Your task to perform on an android device: What's the weather going to be tomorrow? Image 0: 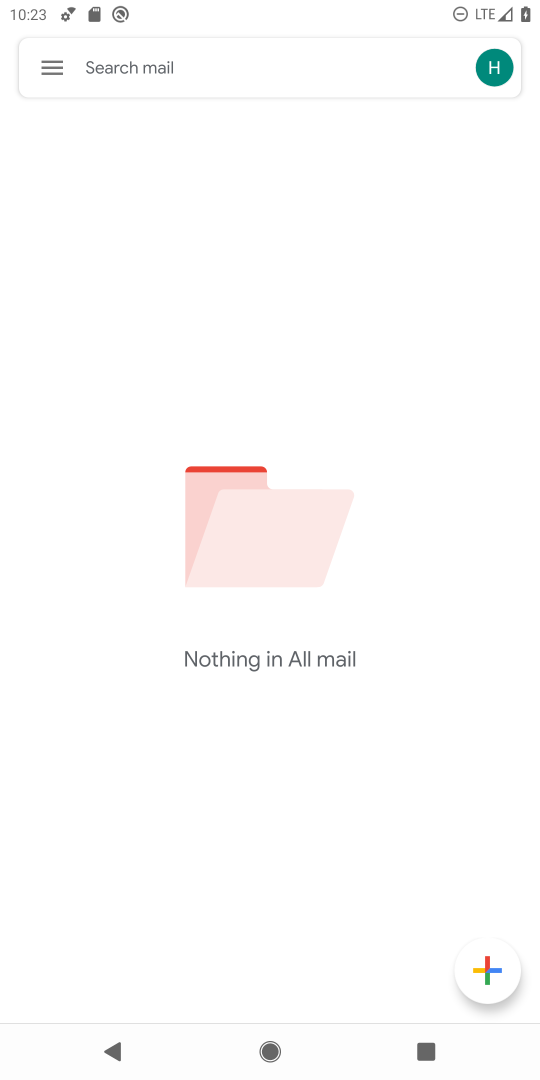
Step 0: press home button
Your task to perform on an android device: What's the weather going to be tomorrow? Image 1: 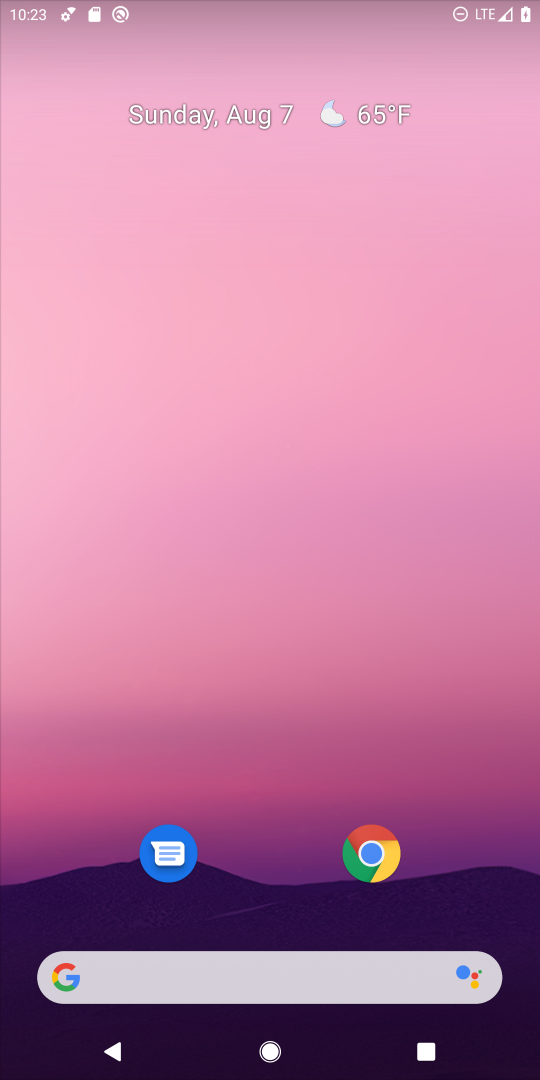
Step 1: drag from (369, 938) to (324, 182)
Your task to perform on an android device: What's the weather going to be tomorrow? Image 2: 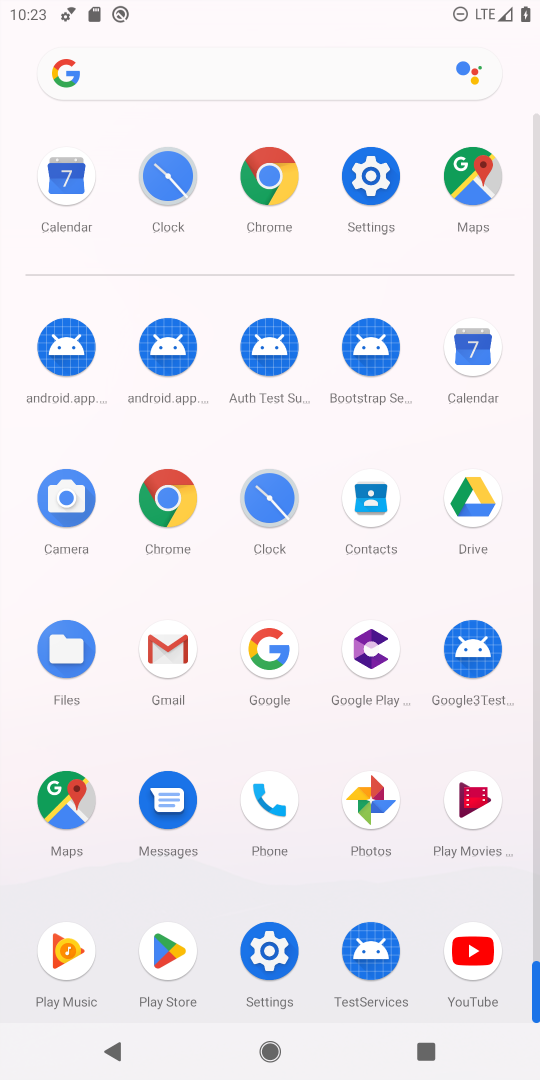
Step 2: click (188, 501)
Your task to perform on an android device: What's the weather going to be tomorrow? Image 3: 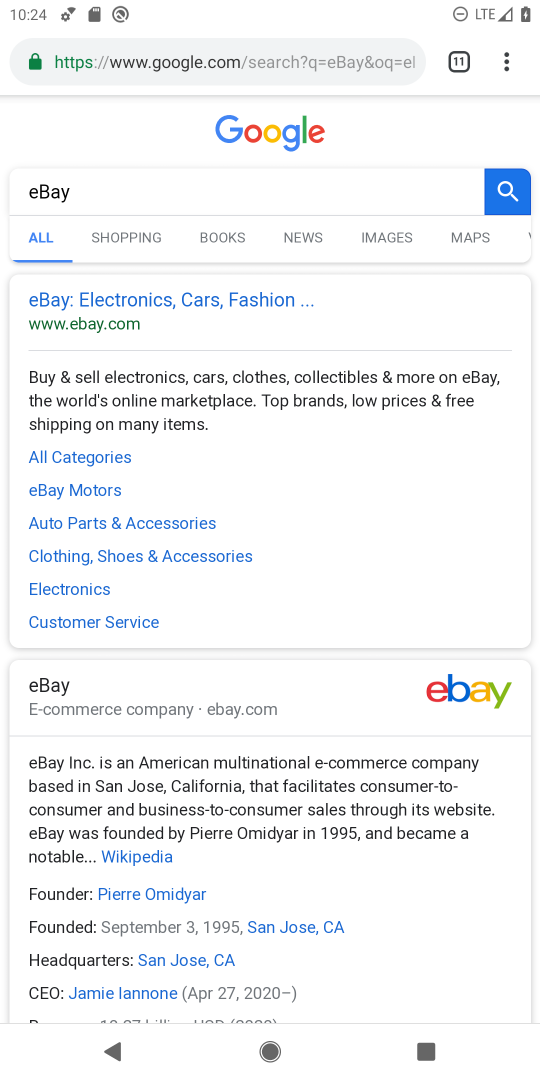
Step 3: click (499, 61)
Your task to perform on an android device: What's the weather going to be tomorrow? Image 4: 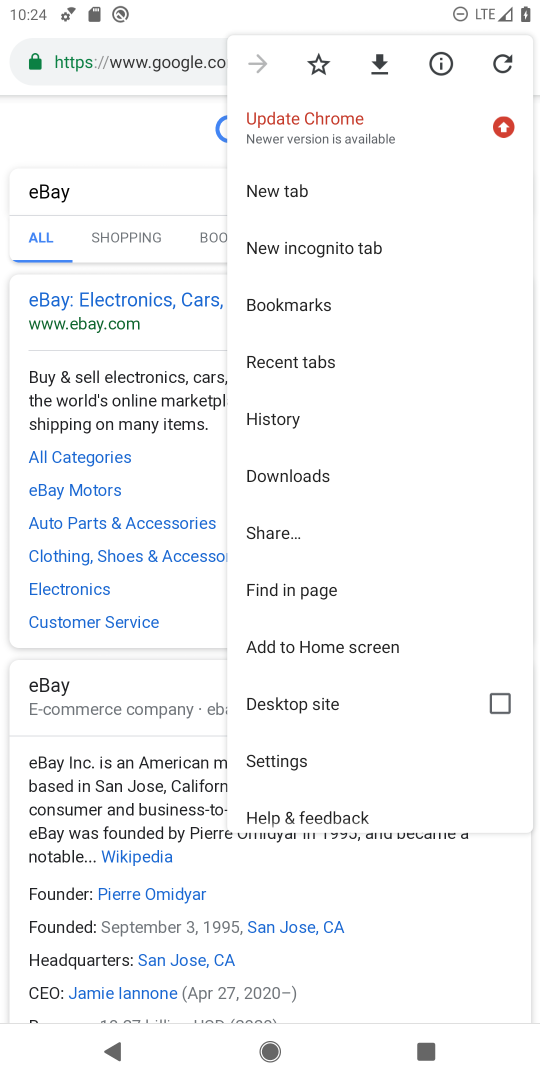
Step 4: click (268, 200)
Your task to perform on an android device: What's the weather going to be tomorrow? Image 5: 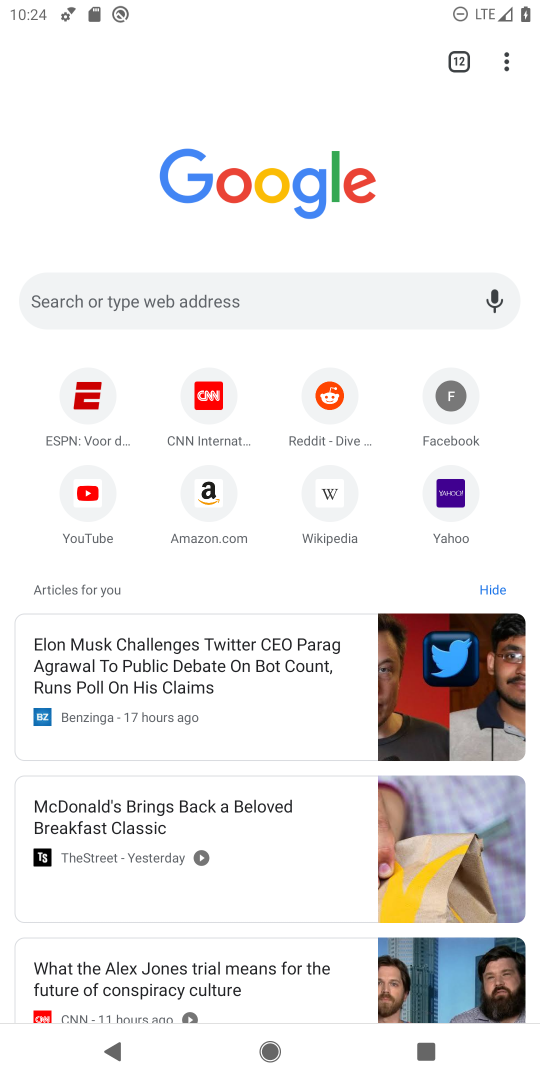
Step 5: click (200, 280)
Your task to perform on an android device: What's the weather going to be tomorrow? Image 6: 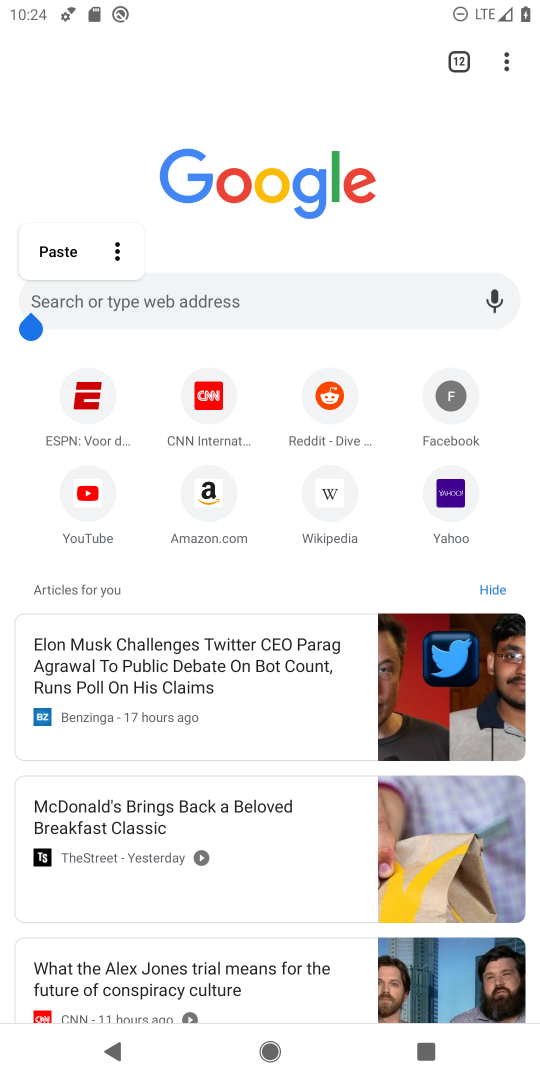
Step 6: type "What's the weather going to be tomorrow? "
Your task to perform on an android device: What's the weather going to be tomorrow? Image 7: 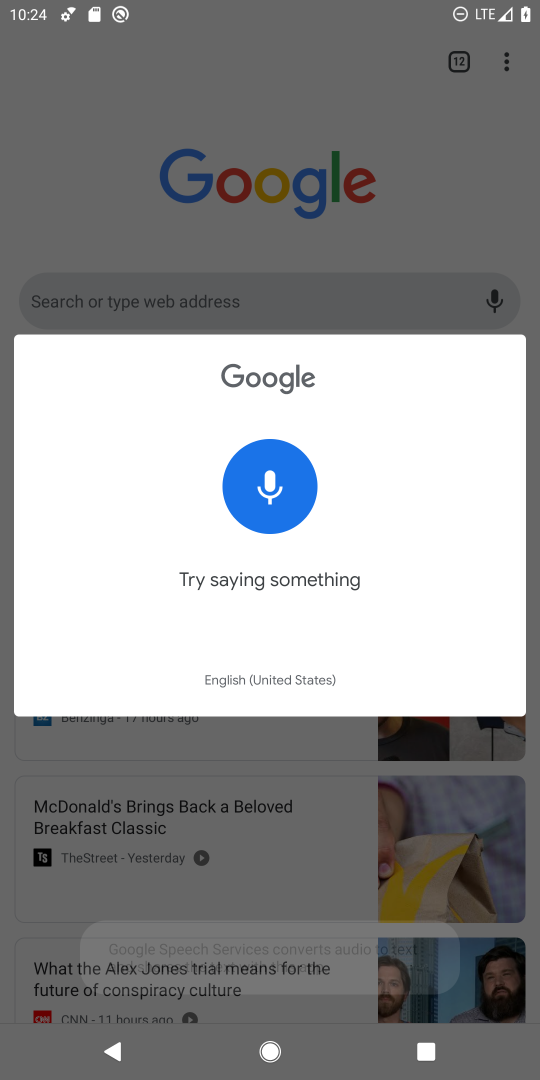
Step 7: click (351, 206)
Your task to perform on an android device: What's the weather going to be tomorrow? Image 8: 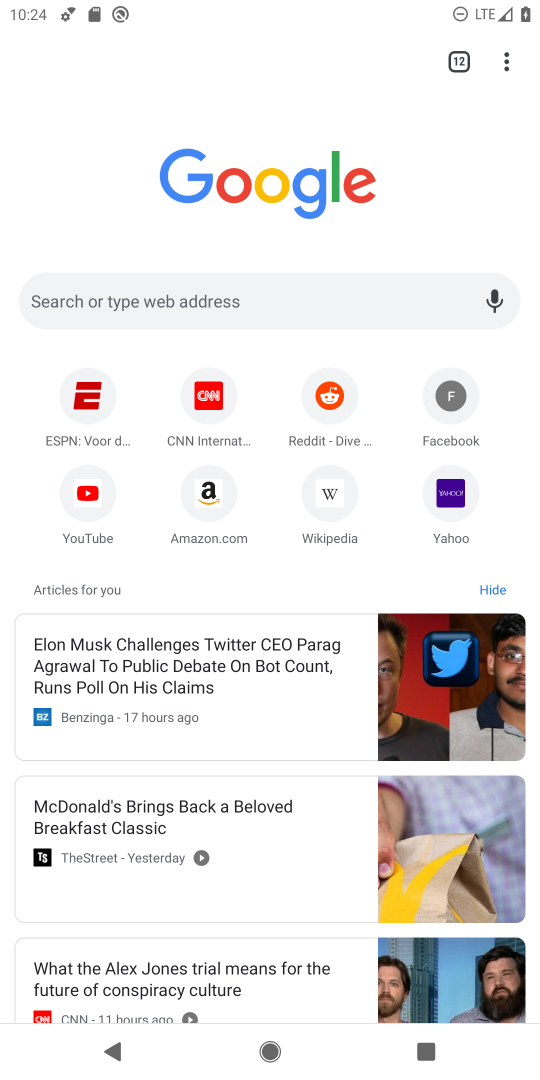
Step 8: click (344, 289)
Your task to perform on an android device: What's the weather going to be tomorrow? Image 9: 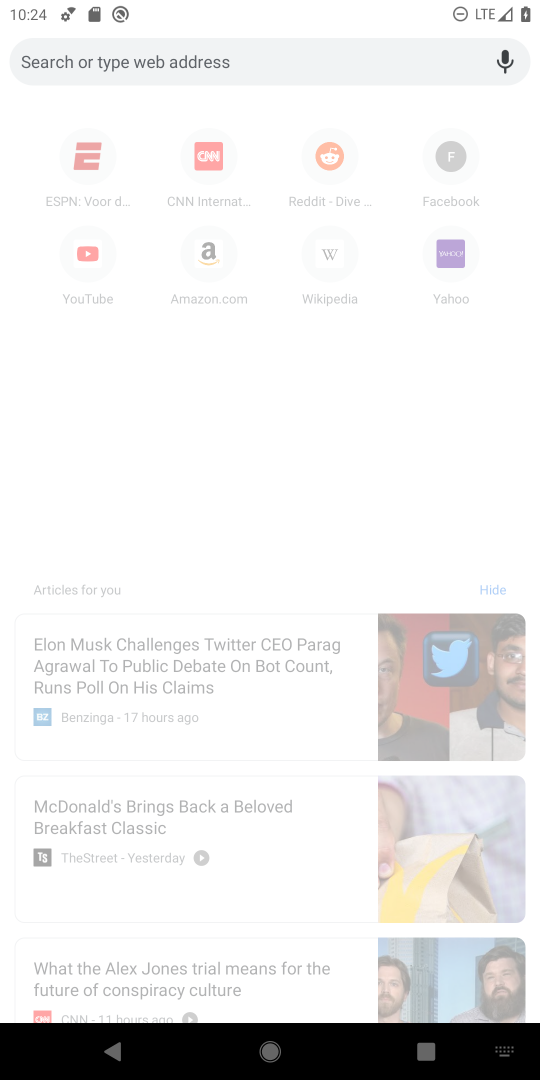
Step 9: click (326, 45)
Your task to perform on an android device: What's the weather going to be tomorrow? Image 10: 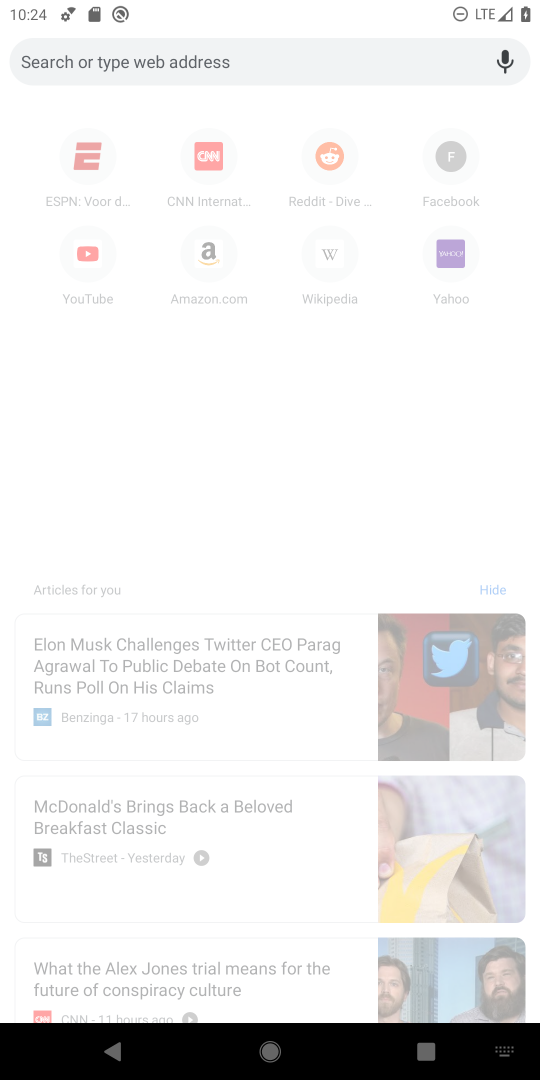
Step 10: type "What's the weather going to be tomorrow? "
Your task to perform on an android device: What's the weather going to be tomorrow? Image 11: 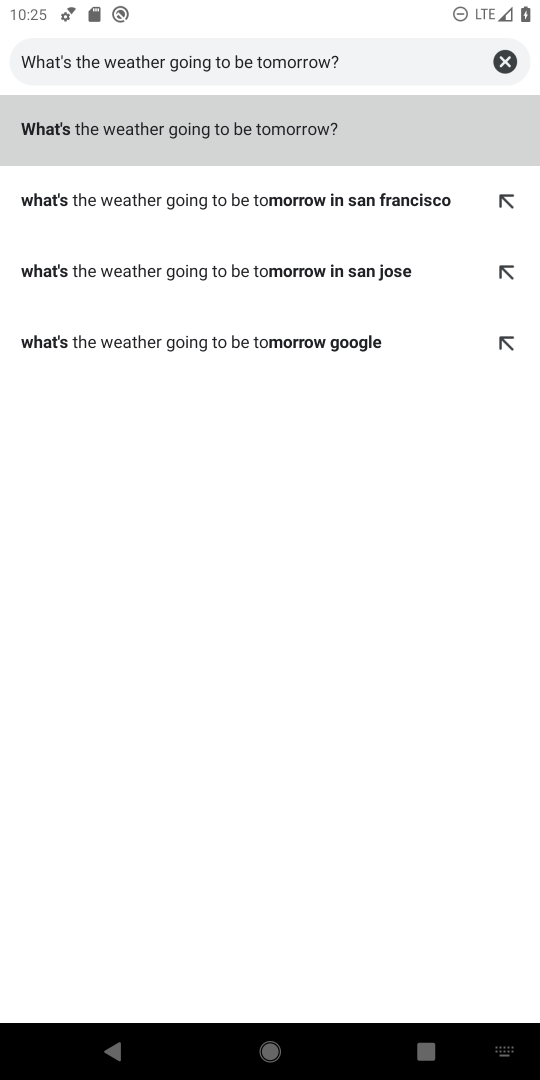
Step 11: click (141, 121)
Your task to perform on an android device: What's the weather going to be tomorrow? Image 12: 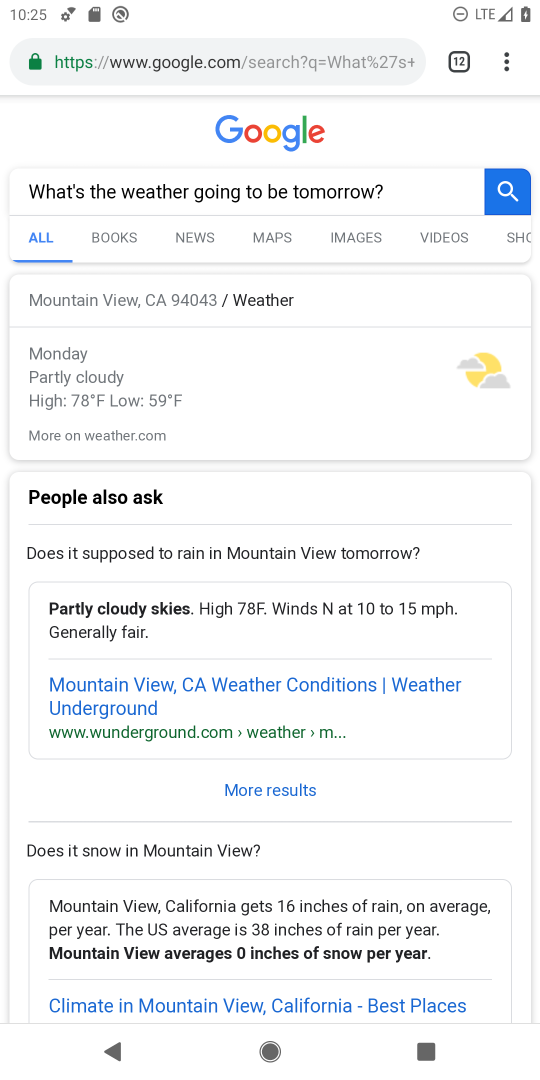
Step 12: task complete